Your task to perform on an android device: Turn off the flashlight Image 0: 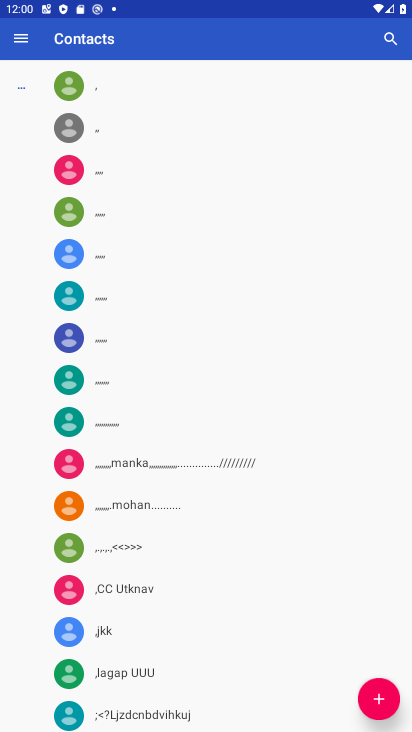
Step 0: press home button
Your task to perform on an android device: Turn off the flashlight Image 1: 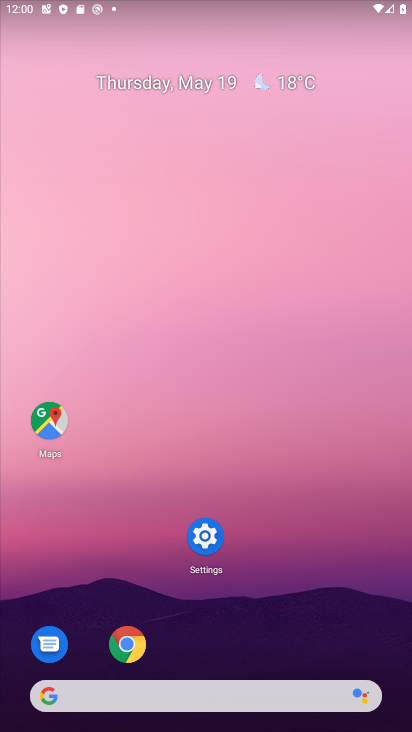
Step 1: task complete